Your task to perform on an android device: turn on javascript in the chrome app Image 0: 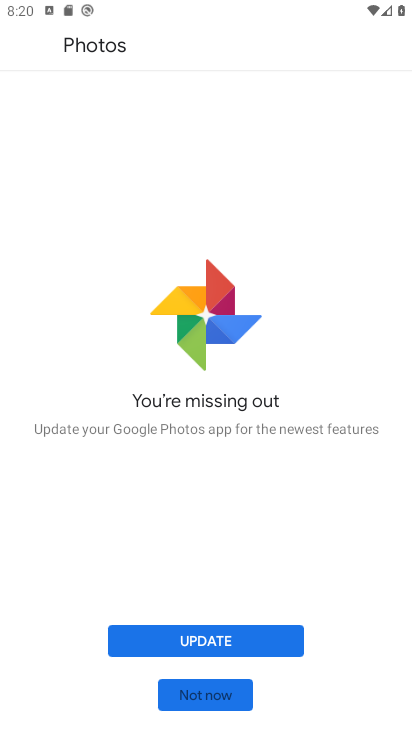
Step 0: press home button
Your task to perform on an android device: turn on javascript in the chrome app Image 1: 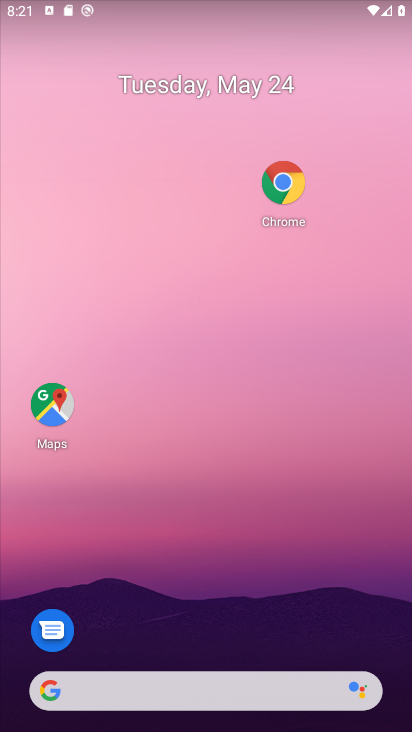
Step 1: drag from (196, 709) to (255, 65)
Your task to perform on an android device: turn on javascript in the chrome app Image 2: 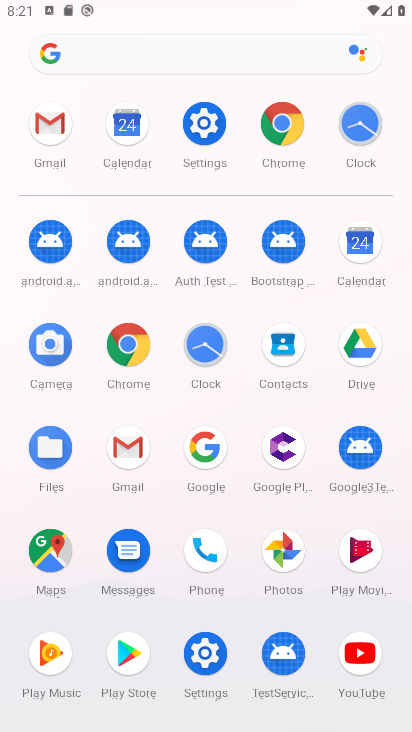
Step 2: click (267, 138)
Your task to perform on an android device: turn on javascript in the chrome app Image 3: 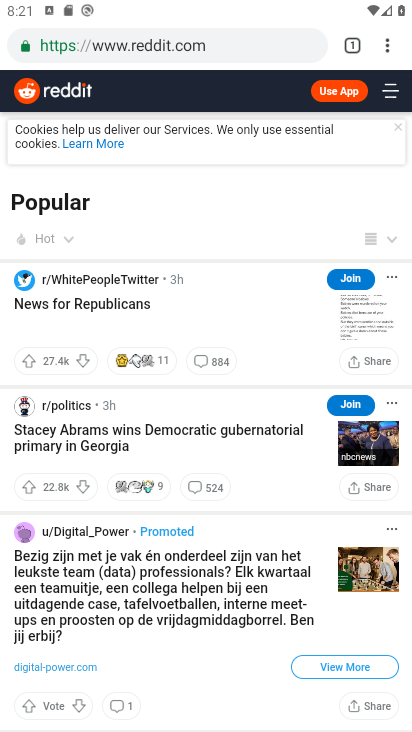
Step 3: click (378, 51)
Your task to perform on an android device: turn on javascript in the chrome app Image 4: 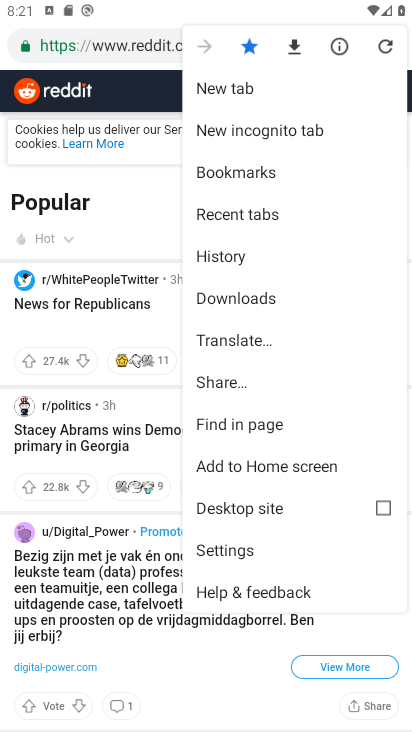
Step 4: click (244, 546)
Your task to perform on an android device: turn on javascript in the chrome app Image 5: 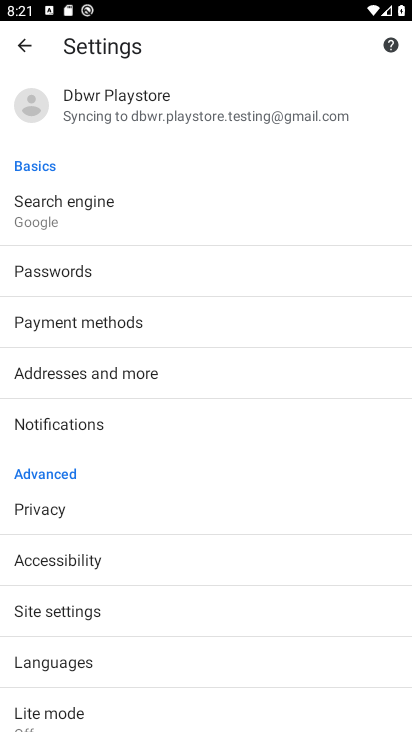
Step 5: click (104, 612)
Your task to perform on an android device: turn on javascript in the chrome app Image 6: 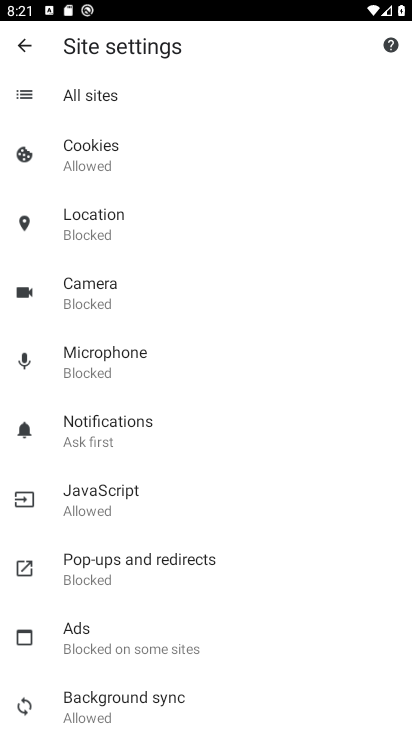
Step 6: click (130, 500)
Your task to perform on an android device: turn on javascript in the chrome app Image 7: 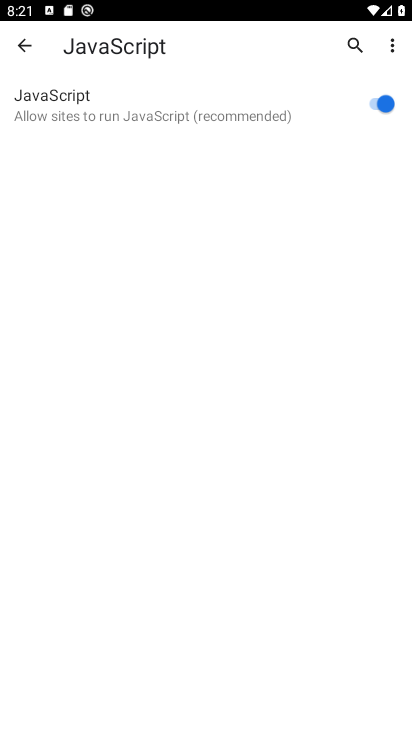
Step 7: click (380, 118)
Your task to perform on an android device: turn on javascript in the chrome app Image 8: 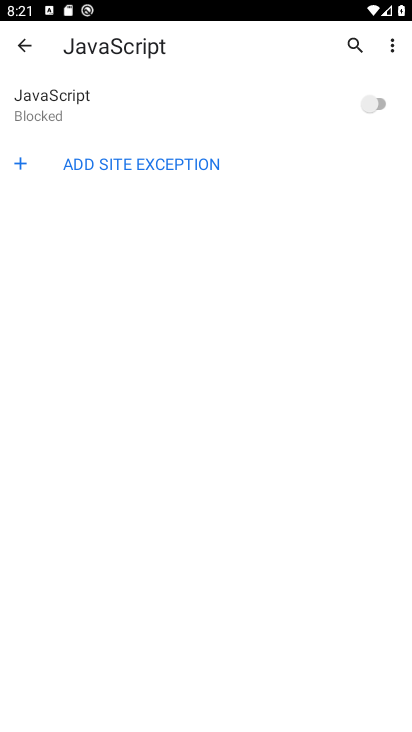
Step 8: click (385, 115)
Your task to perform on an android device: turn on javascript in the chrome app Image 9: 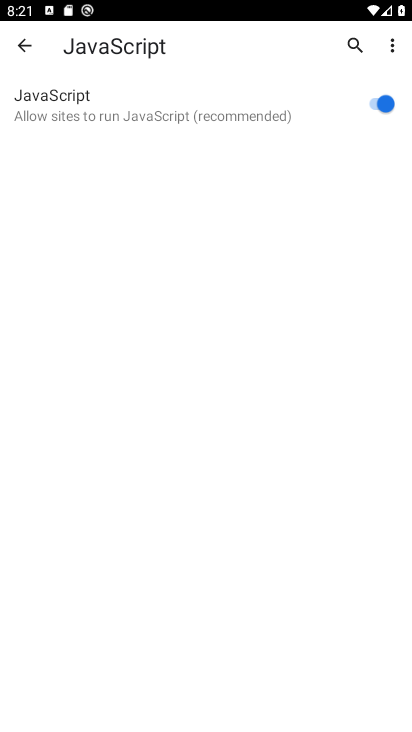
Step 9: task complete